Your task to perform on an android device: Go to calendar. Show me events next week Image 0: 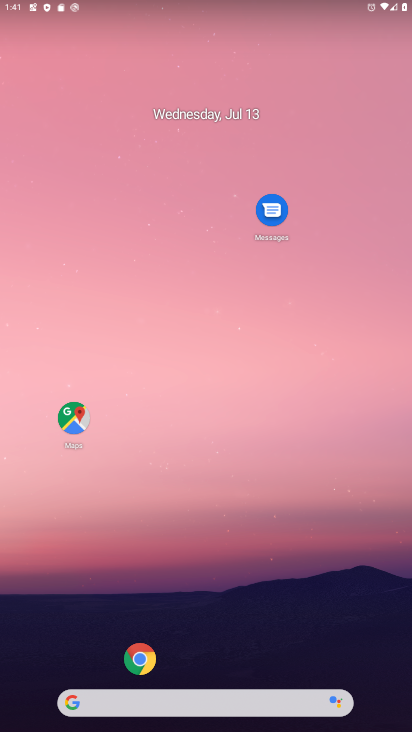
Step 0: drag from (57, 664) to (393, 11)
Your task to perform on an android device: Go to calendar. Show me events next week Image 1: 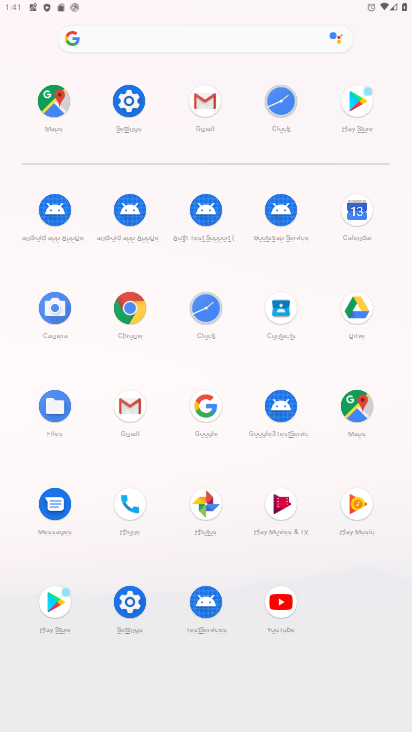
Step 1: click (360, 220)
Your task to perform on an android device: Go to calendar. Show me events next week Image 2: 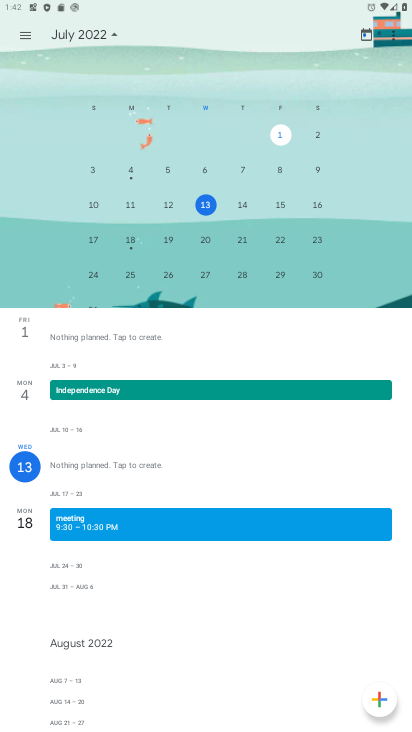
Step 2: task complete